Your task to perform on an android device: Open accessibility settings Image 0: 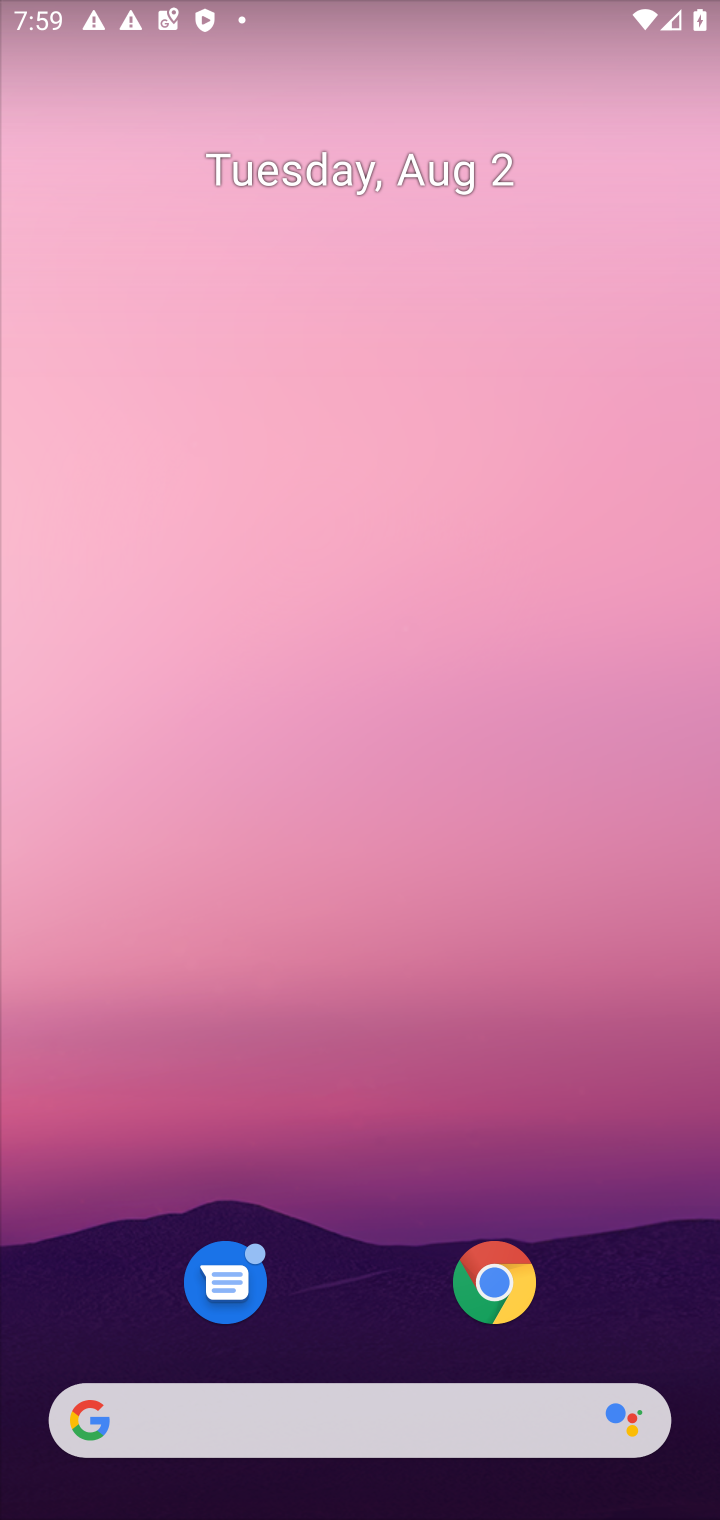
Step 0: drag from (333, 1340) to (670, 450)
Your task to perform on an android device: Open accessibility settings Image 1: 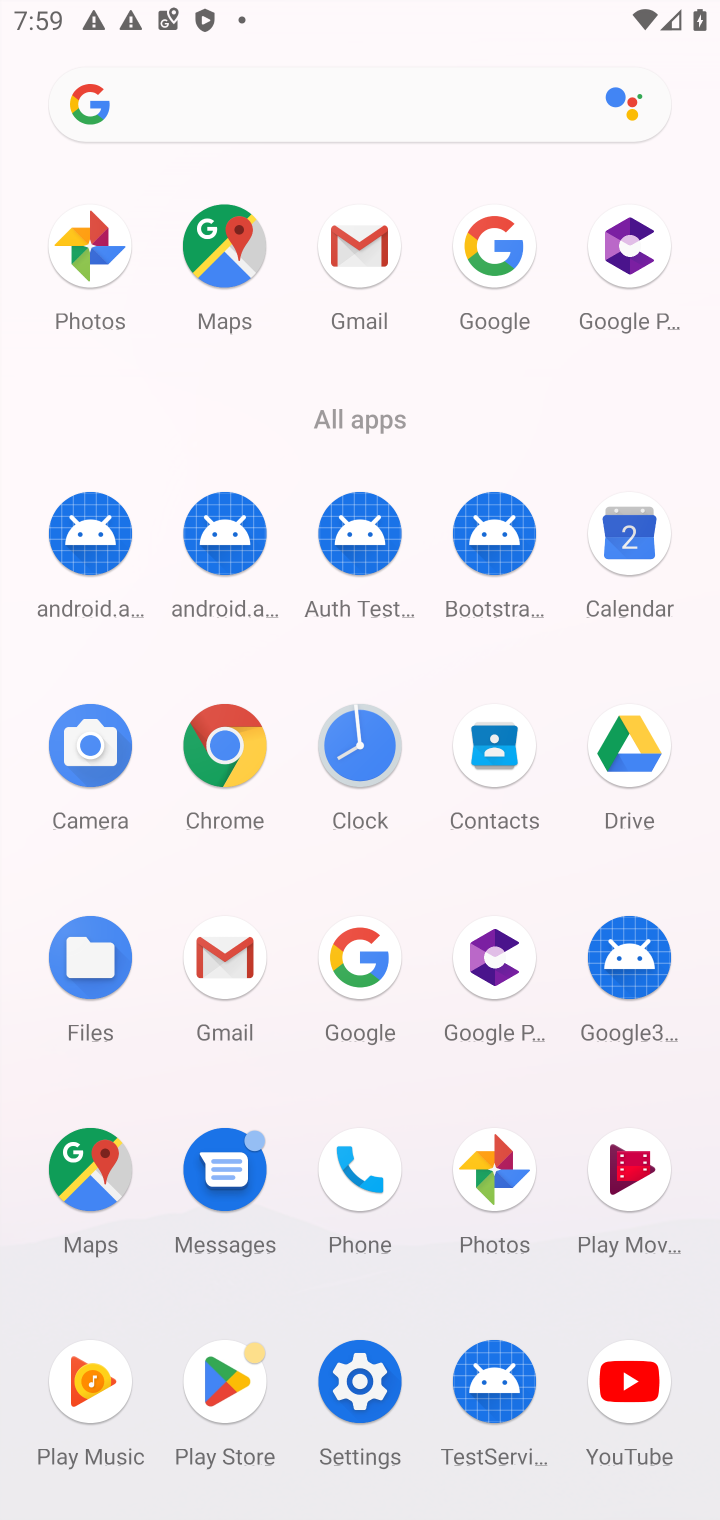
Step 1: click (351, 1433)
Your task to perform on an android device: Open accessibility settings Image 2: 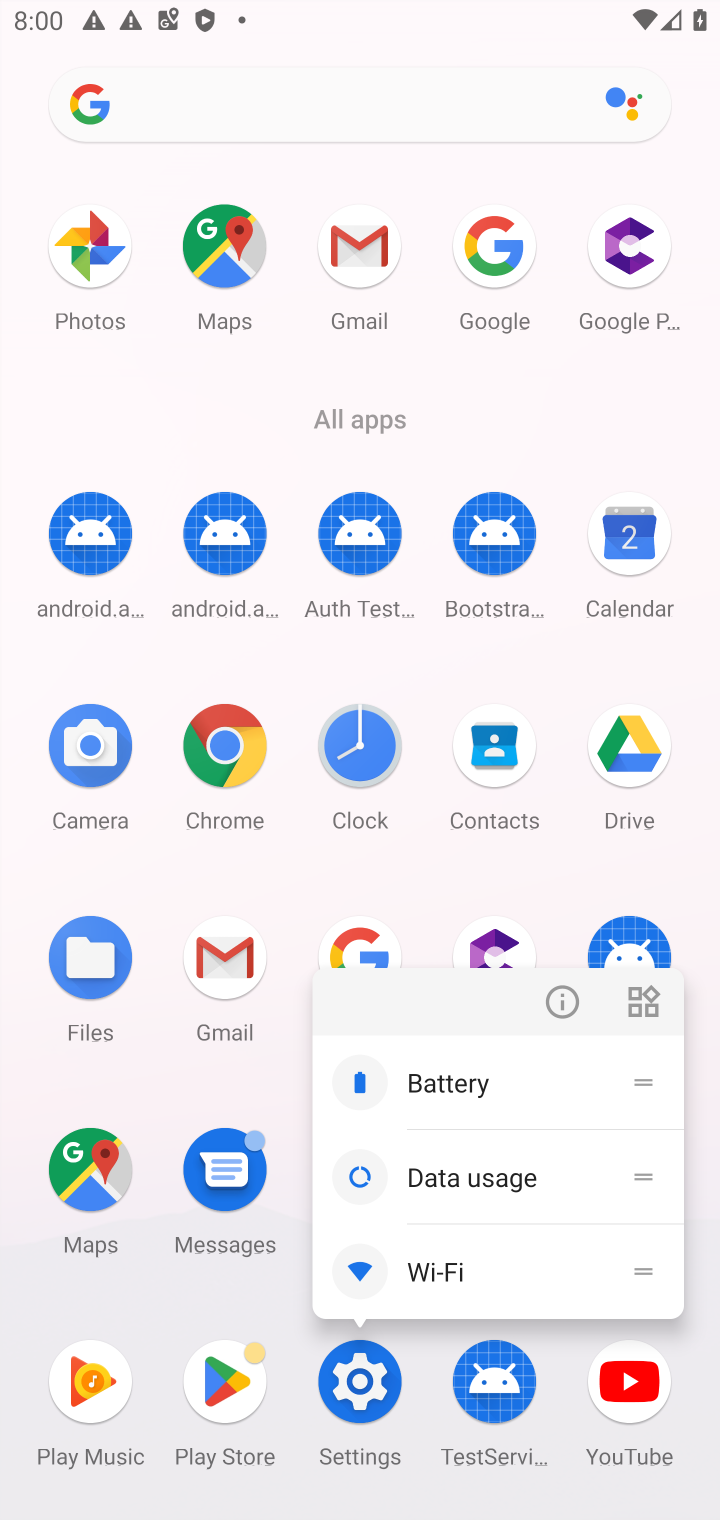
Step 2: click (325, 1357)
Your task to perform on an android device: Open accessibility settings Image 3: 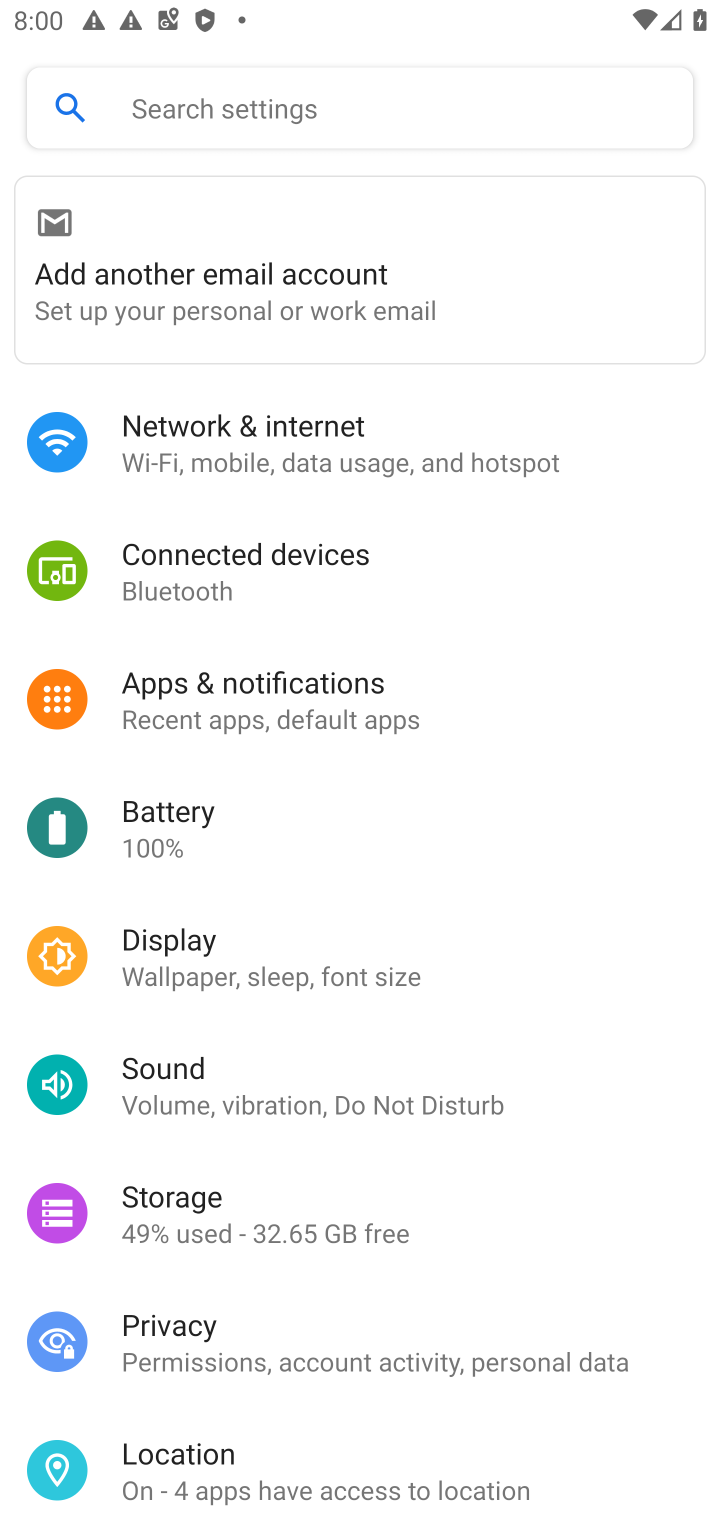
Step 3: drag from (126, 1270) to (3, 258)
Your task to perform on an android device: Open accessibility settings Image 4: 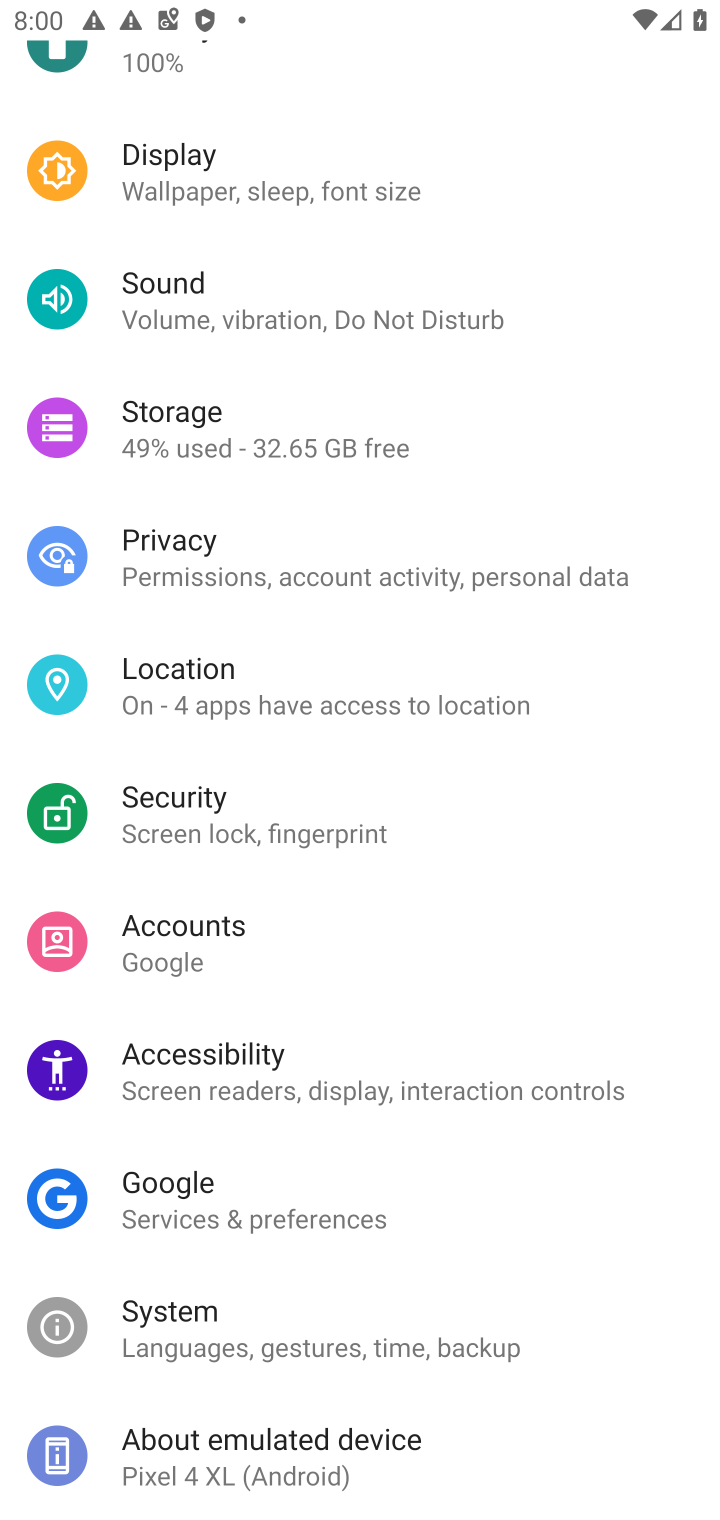
Step 4: click (187, 1084)
Your task to perform on an android device: Open accessibility settings Image 5: 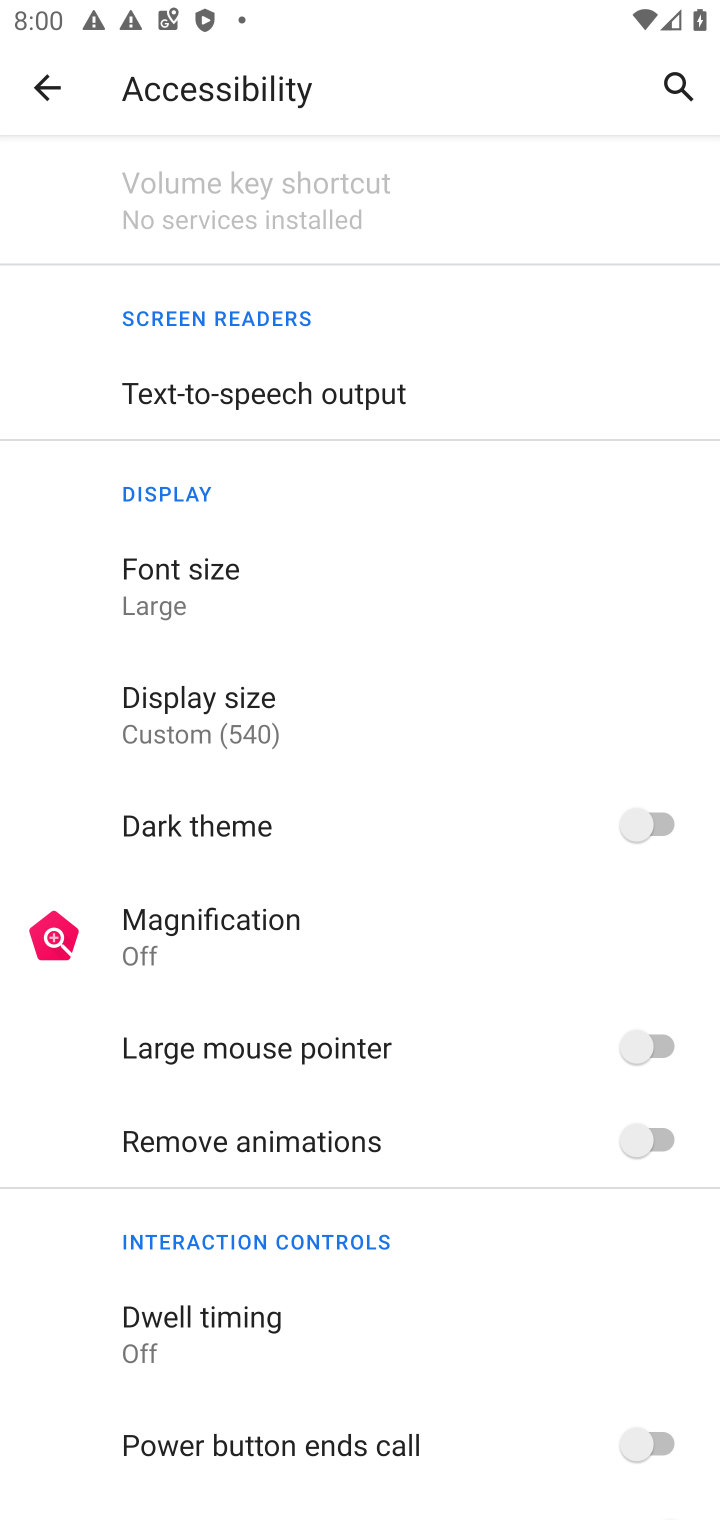
Step 5: task complete